Your task to perform on an android device: turn on priority inbox in the gmail app Image 0: 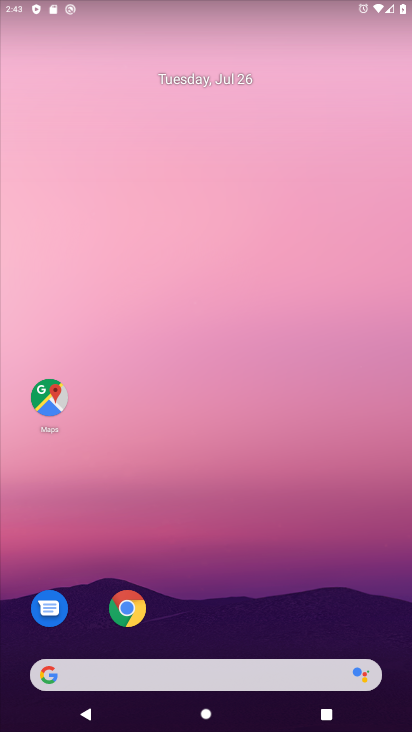
Step 0: drag from (269, 593) to (260, 192)
Your task to perform on an android device: turn on priority inbox in the gmail app Image 1: 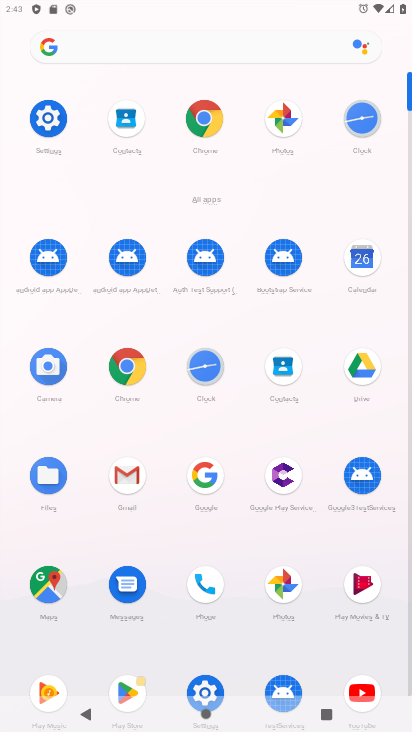
Step 1: click (116, 491)
Your task to perform on an android device: turn on priority inbox in the gmail app Image 2: 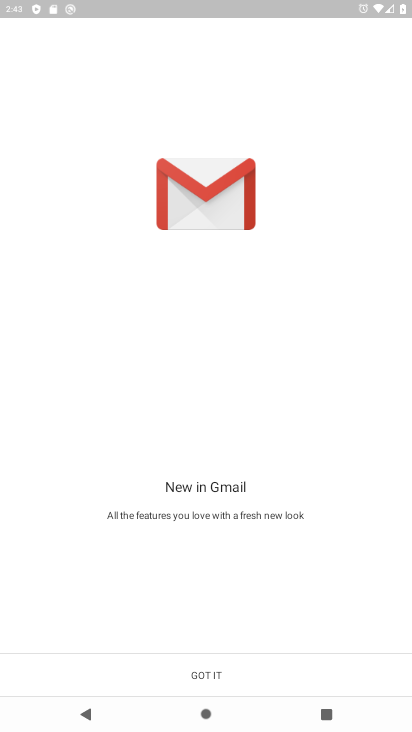
Step 2: click (138, 674)
Your task to perform on an android device: turn on priority inbox in the gmail app Image 3: 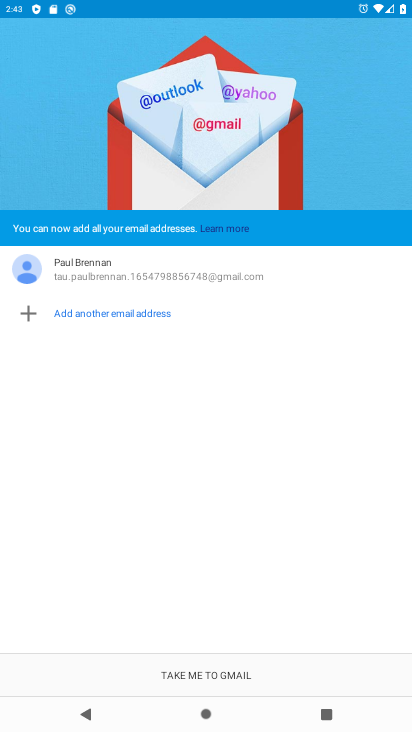
Step 3: click (137, 671)
Your task to perform on an android device: turn on priority inbox in the gmail app Image 4: 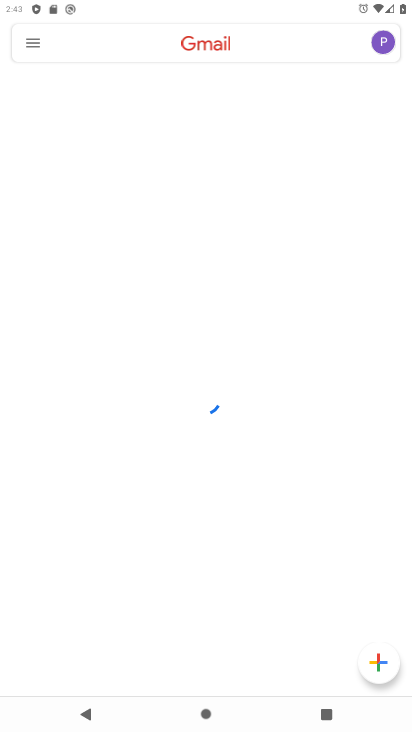
Step 4: click (27, 43)
Your task to perform on an android device: turn on priority inbox in the gmail app Image 5: 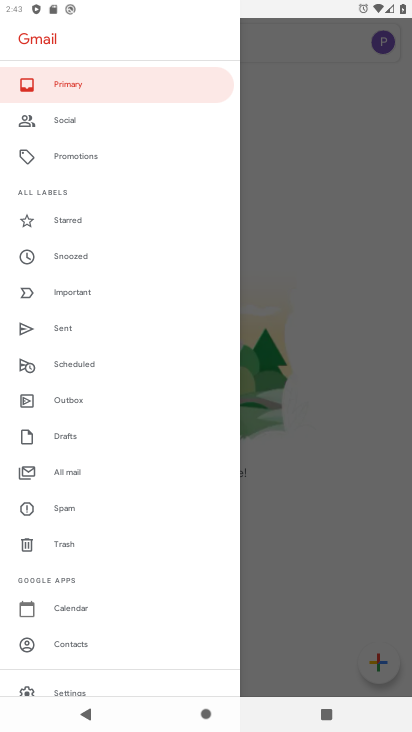
Step 5: click (77, 684)
Your task to perform on an android device: turn on priority inbox in the gmail app Image 6: 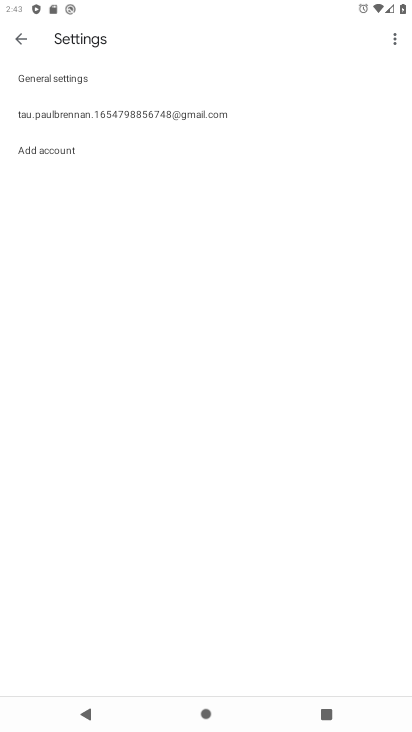
Step 6: click (211, 121)
Your task to perform on an android device: turn on priority inbox in the gmail app Image 7: 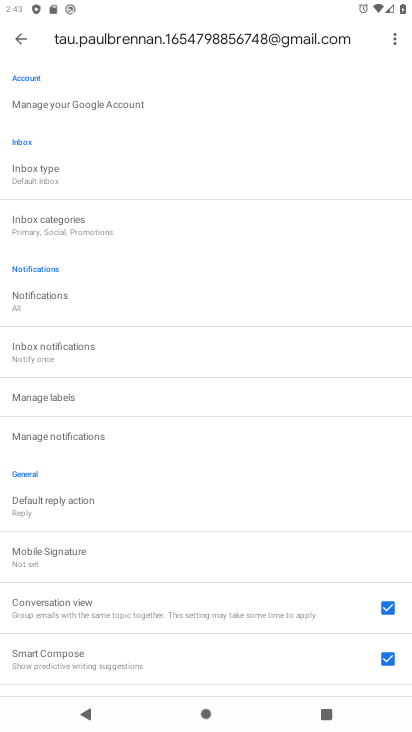
Step 7: click (35, 181)
Your task to perform on an android device: turn on priority inbox in the gmail app Image 8: 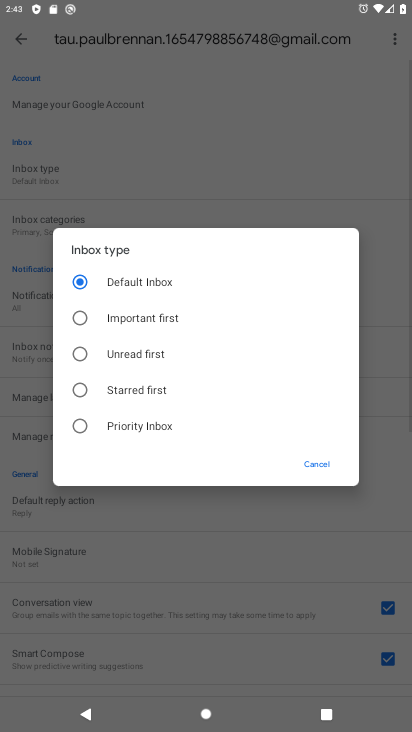
Step 8: click (103, 431)
Your task to perform on an android device: turn on priority inbox in the gmail app Image 9: 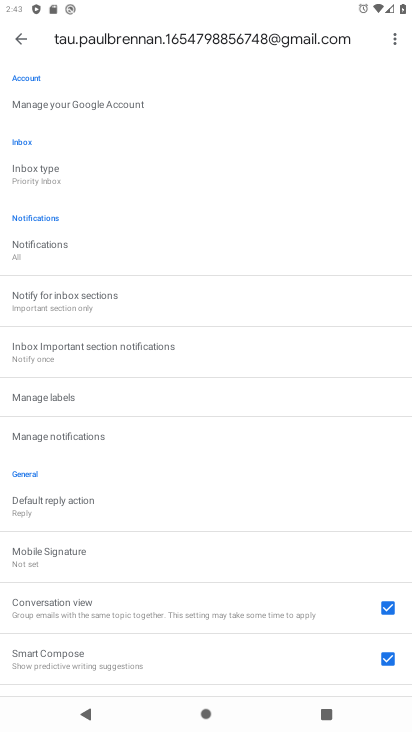
Step 9: task complete